Your task to perform on an android device: Go to accessibility settings Image 0: 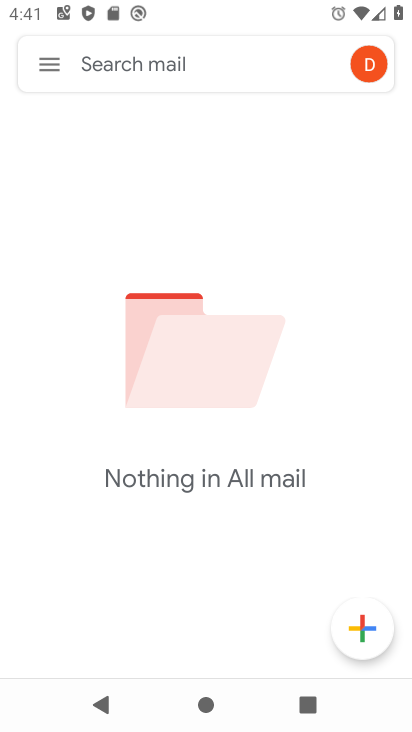
Step 0: press home button
Your task to perform on an android device: Go to accessibility settings Image 1: 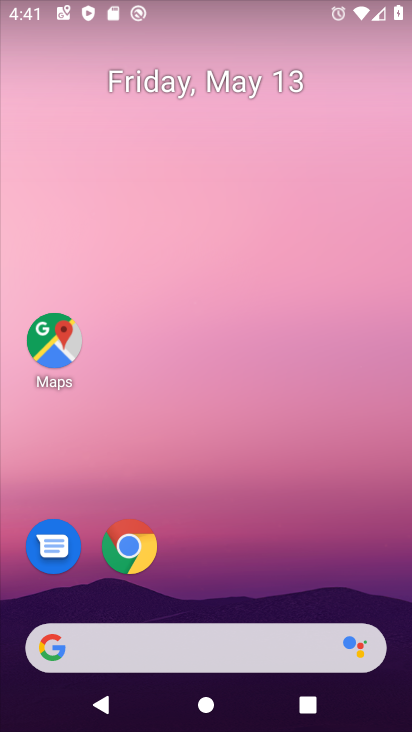
Step 1: drag from (208, 599) to (291, 12)
Your task to perform on an android device: Go to accessibility settings Image 2: 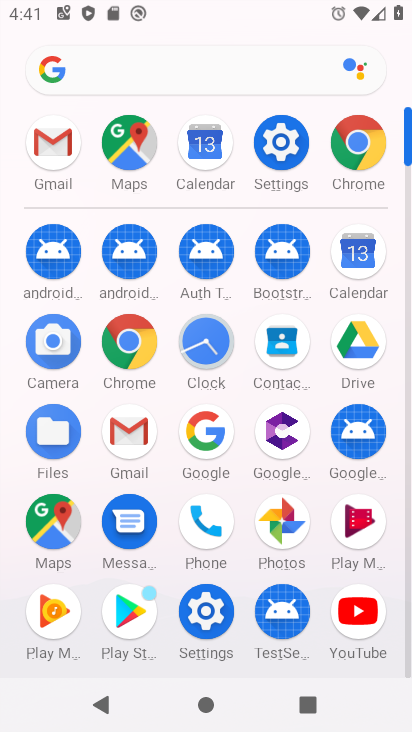
Step 2: click (289, 157)
Your task to perform on an android device: Go to accessibility settings Image 3: 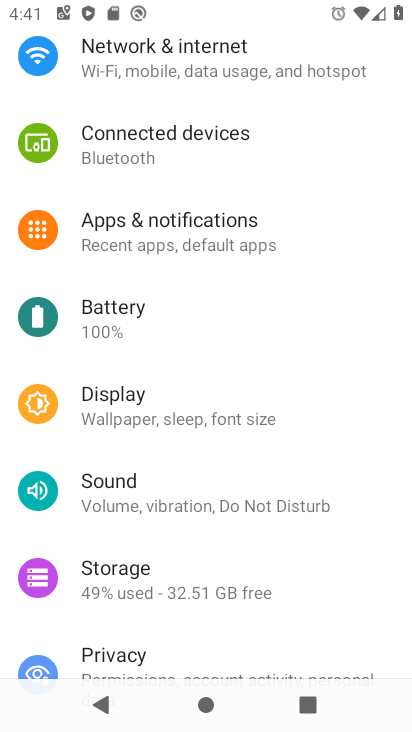
Step 3: drag from (227, 248) to (210, 526)
Your task to perform on an android device: Go to accessibility settings Image 4: 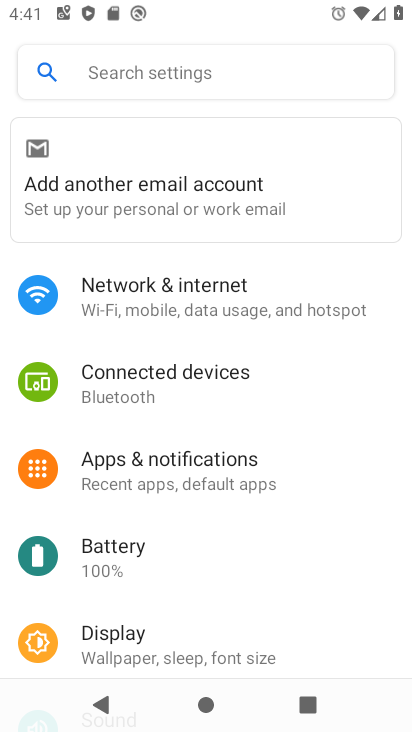
Step 4: drag from (206, 508) to (316, 0)
Your task to perform on an android device: Go to accessibility settings Image 5: 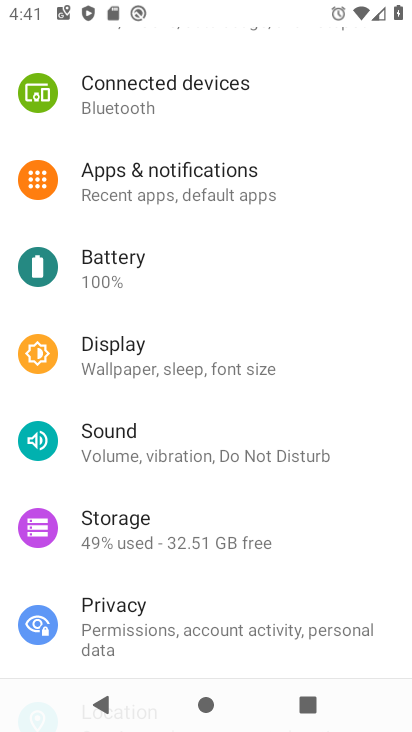
Step 5: drag from (246, 350) to (332, 5)
Your task to perform on an android device: Go to accessibility settings Image 6: 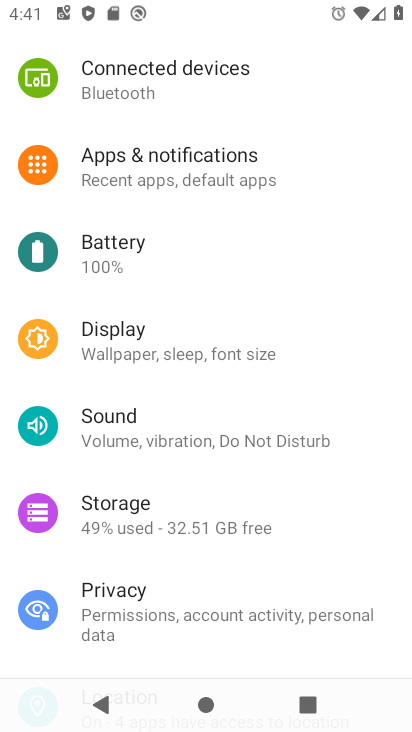
Step 6: drag from (224, 538) to (265, 0)
Your task to perform on an android device: Go to accessibility settings Image 7: 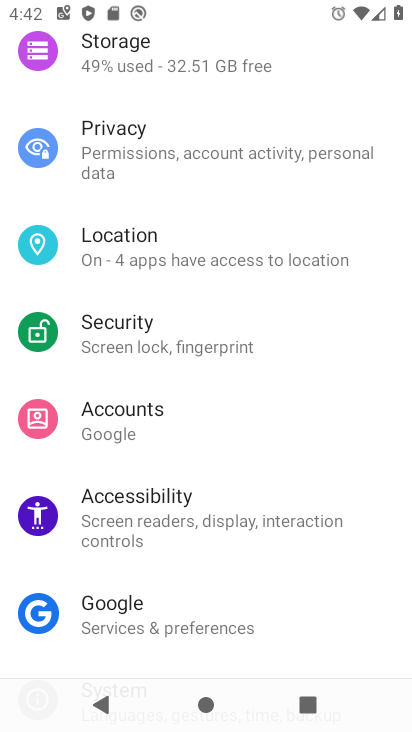
Step 7: click (169, 511)
Your task to perform on an android device: Go to accessibility settings Image 8: 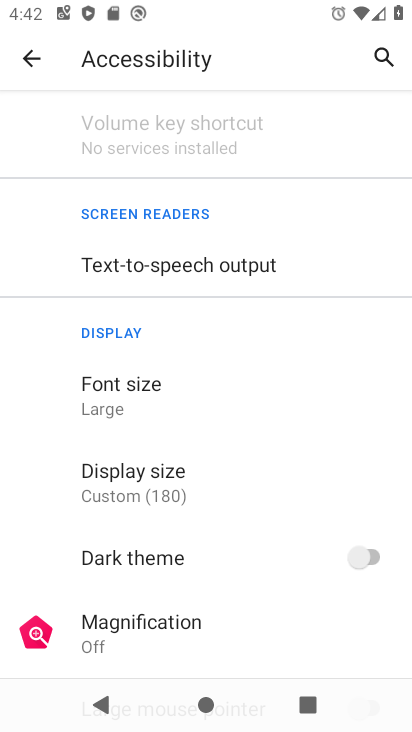
Step 8: task complete